Your task to perform on an android device: Open Youtube and go to the subscriptions tab Image 0: 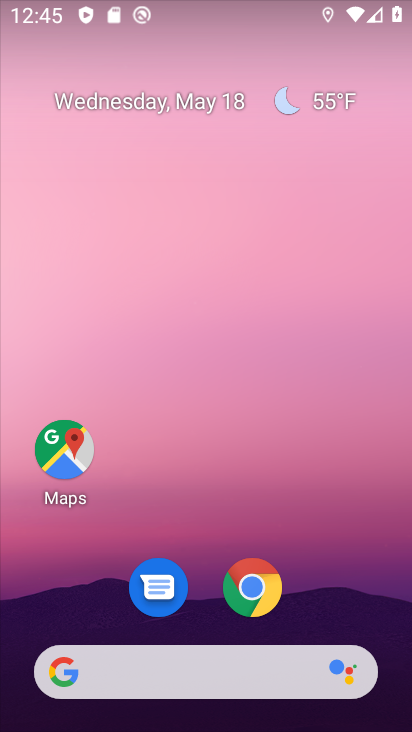
Step 0: drag from (193, 640) to (258, 47)
Your task to perform on an android device: Open Youtube and go to the subscriptions tab Image 1: 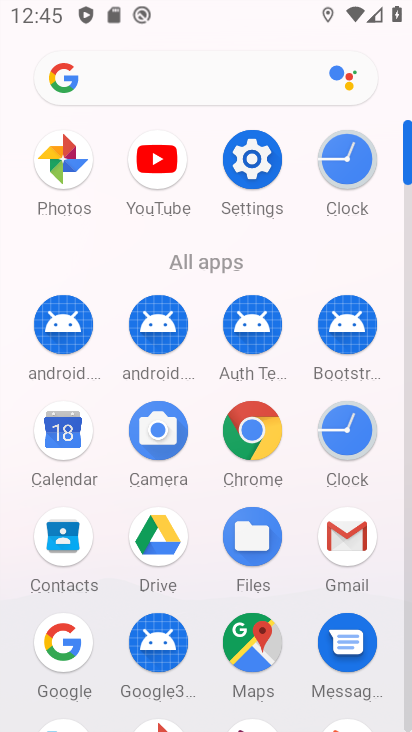
Step 1: click (158, 152)
Your task to perform on an android device: Open Youtube and go to the subscriptions tab Image 2: 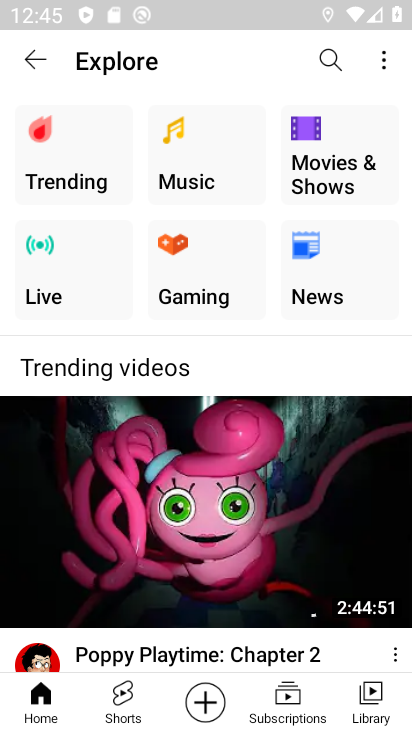
Step 2: click (269, 684)
Your task to perform on an android device: Open Youtube and go to the subscriptions tab Image 3: 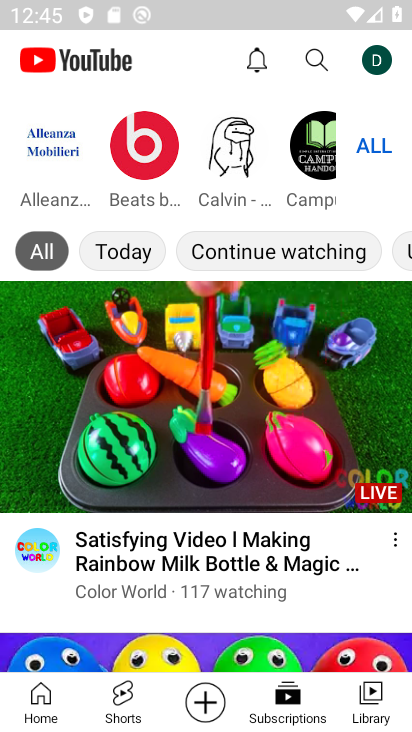
Step 3: task complete